Your task to perform on an android device: Open eBay Image 0: 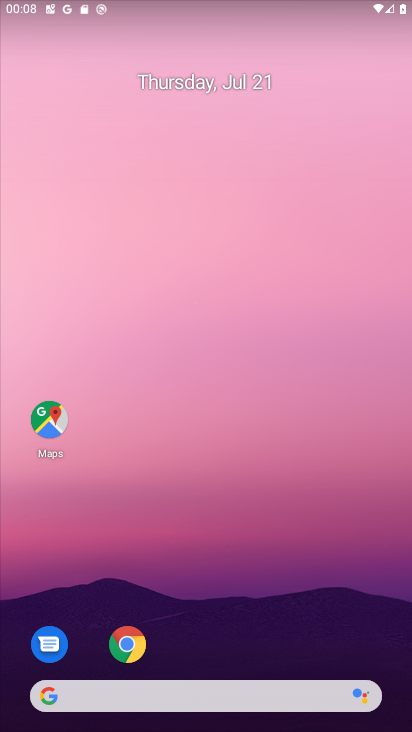
Step 0: click (219, 705)
Your task to perform on an android device: Open eBay Image 1: 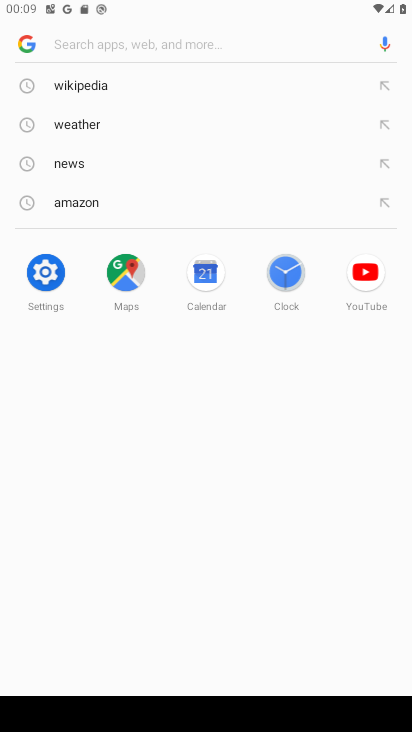
Step 1: type "ebay"
Your task to perform on an android device: Open eBay Image 2: 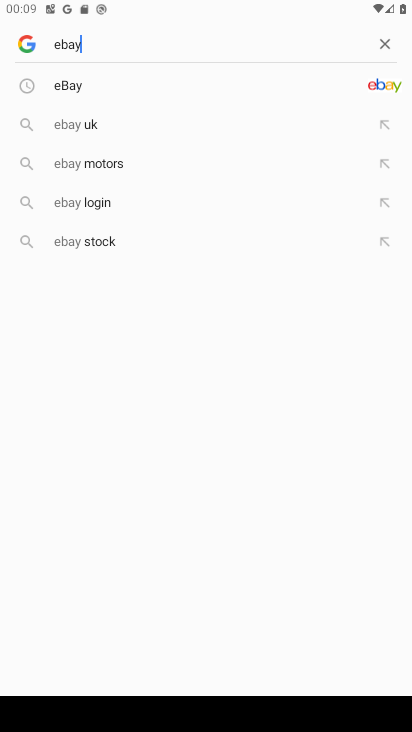
Step 2: click (107, 81)
Your task to perform on an android device: Open eBay Image 3: 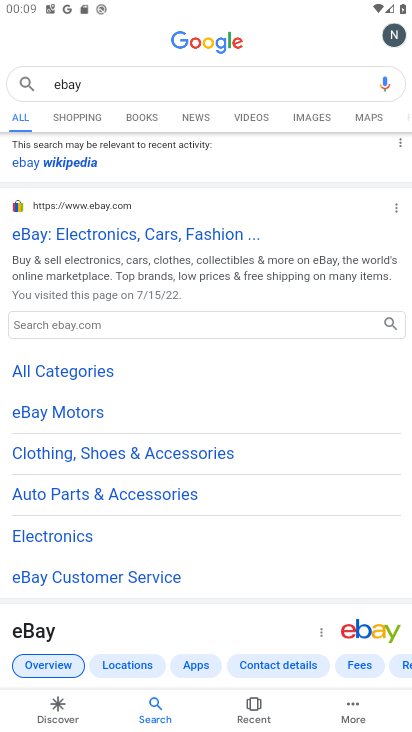
Step 3: click (118, 225)
Your task to perform on an android device: Open eBay Image 4: 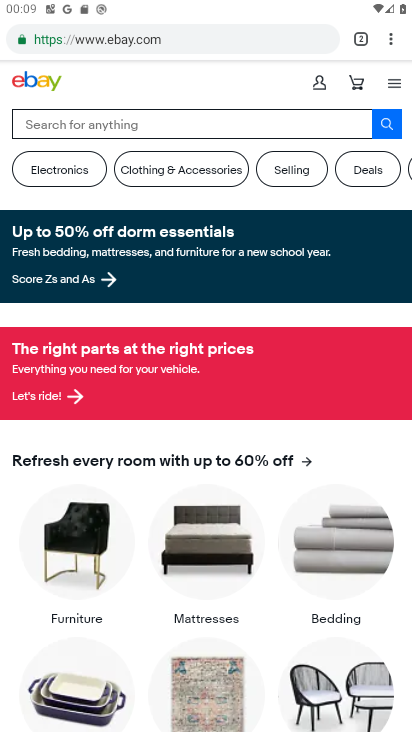
Step 4: task complete